Your task to perform on an android device: Open settings on Google Maps Image 0: 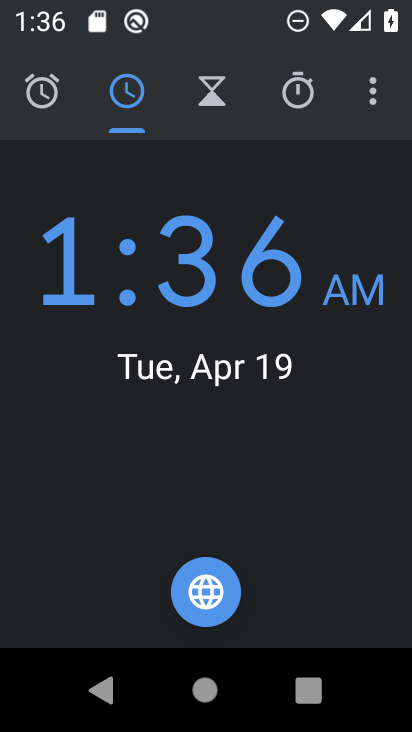
Step 0: press home button
Your task to perform on an android device: Open settings on Google Maps Image 1: 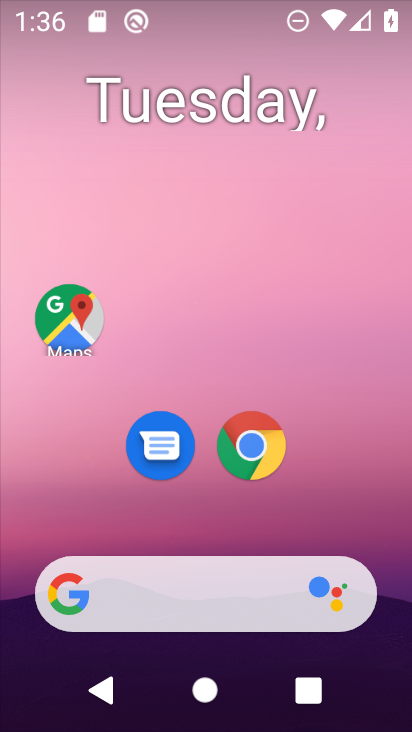
Step 1: click (68, 320)
Your task to perform on an android device: Open settings on Google Maps Image 2: 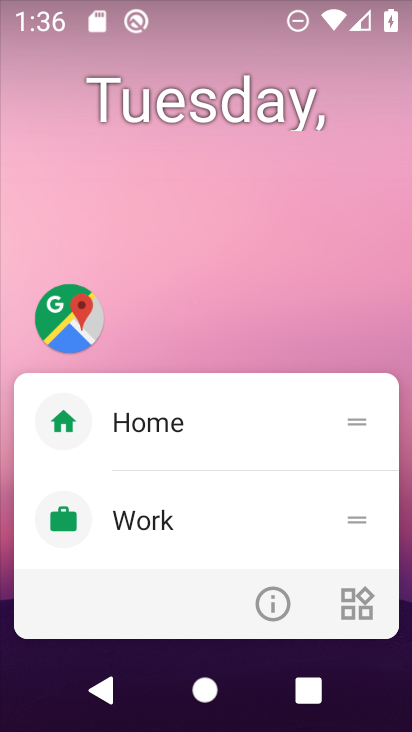
Step 2: click (142, 529)
Your task to perform on an android device: Open settings on Google Maps Image 3: 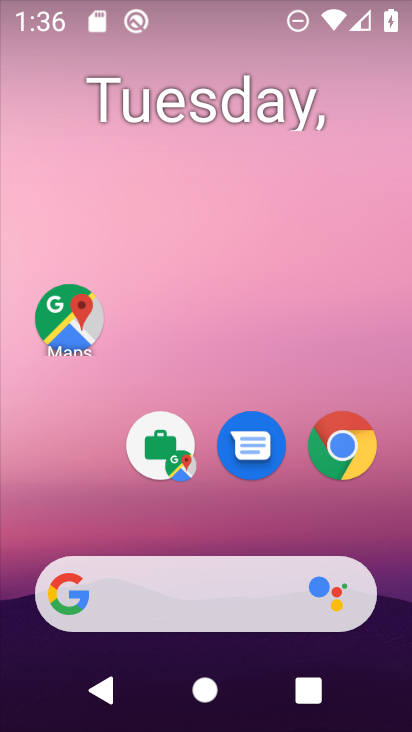
Step 3: click (56, 332)
Your task to perform on an android device: Open settings on Google Maps Image 4: 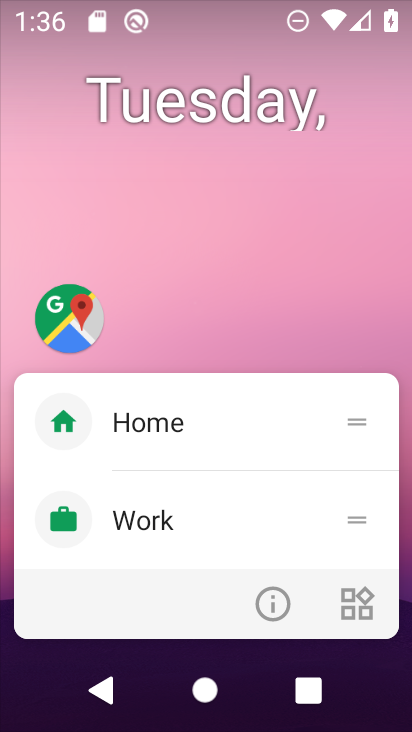
Step 4: click (70, 316)
Your task to perform on an android device: Open settings on Google Maps Image 5: 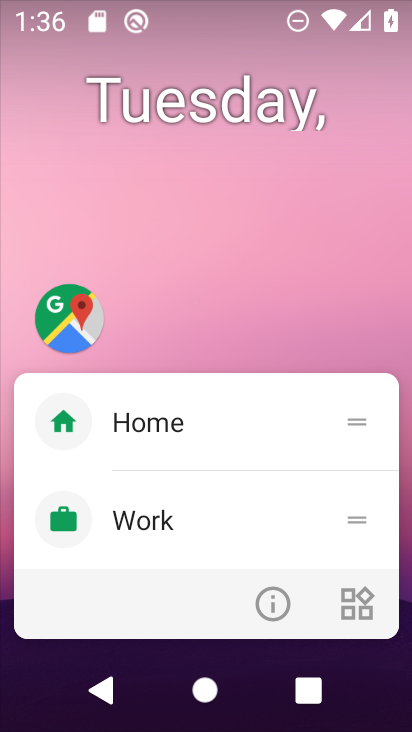
Step 5: click (70, 316)
Your task to perform on an android device: Open settings on Google Maps Image 6: 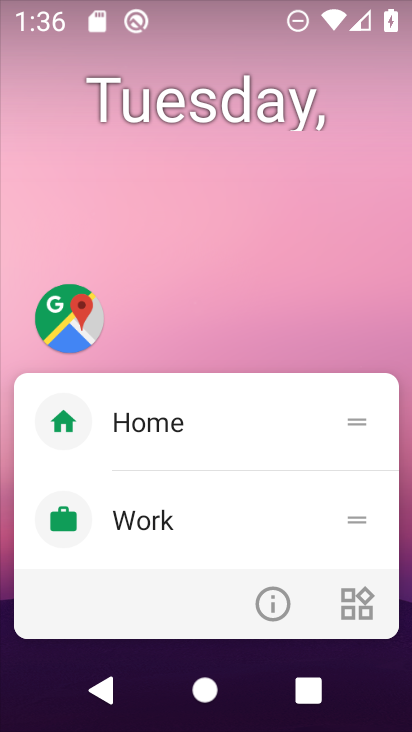
Step 6: click (162, 512)
Your task to perform on an android device: Open settings on Google Maps Image 7: 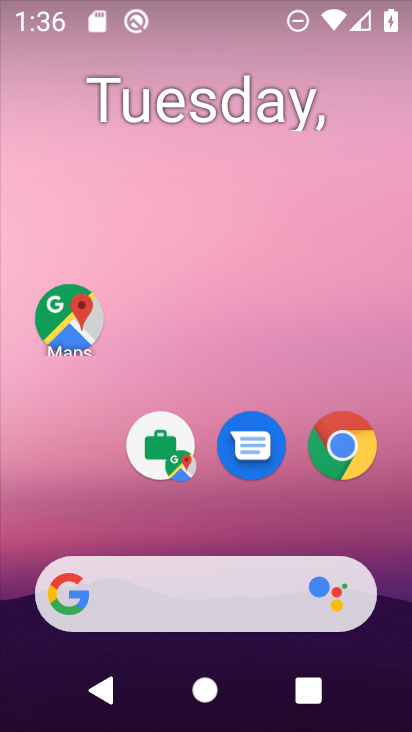
Step 7: click (163, 456)
Your task to perform on an android device: Open settings on Google Maps Image 8: 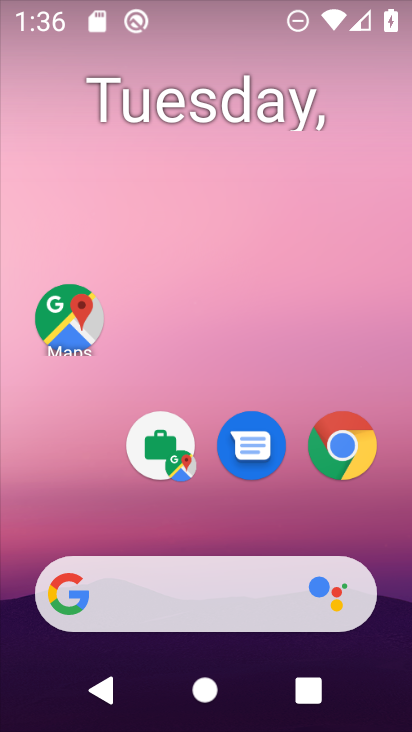
Step 8: click (79, 319)
Your task to perform on an android device: Open settings on Google Maps Image 9: 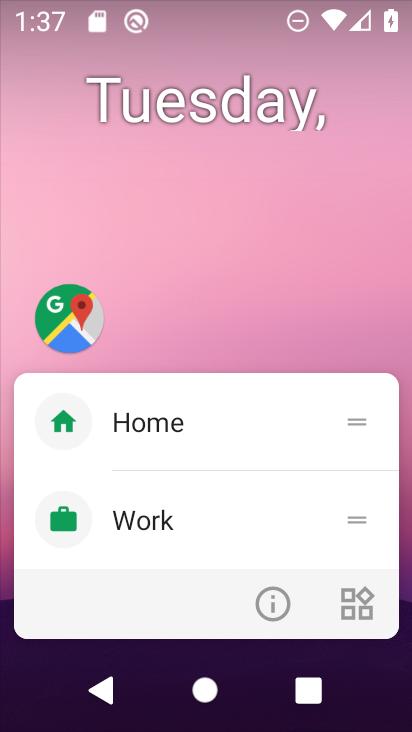
Step 9: click (153, 423)
Your task to perform on an android device: Open settings on Google Maps Image 10: 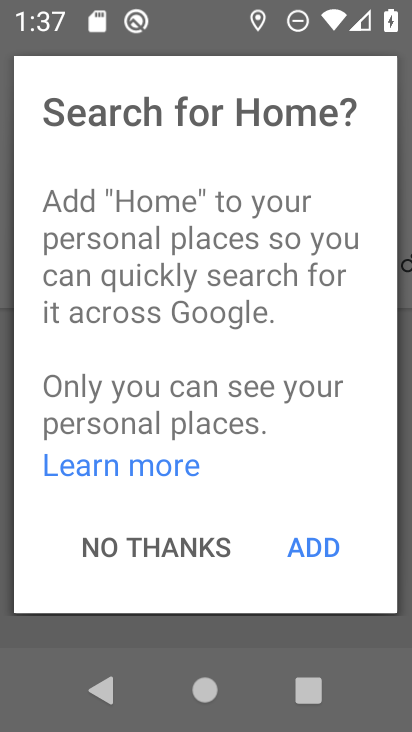
Step 10: click (185, 547)
Your task to perform on an android device: Open settings on Google Maps Image 11: 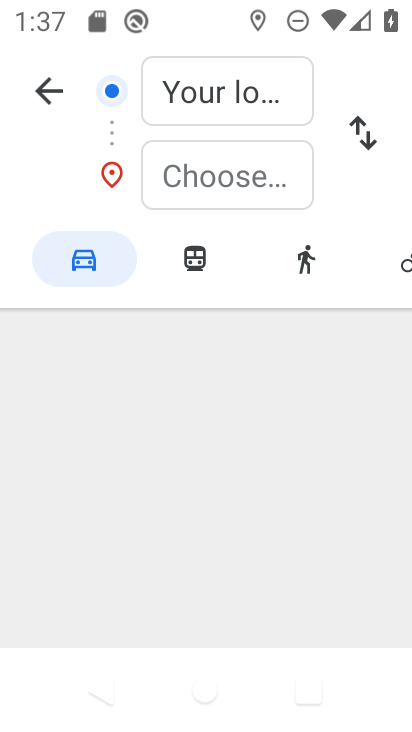
Step 11: click (39, 101)
Your task to perform on an android device: Open settings on Google Maps Image 12: 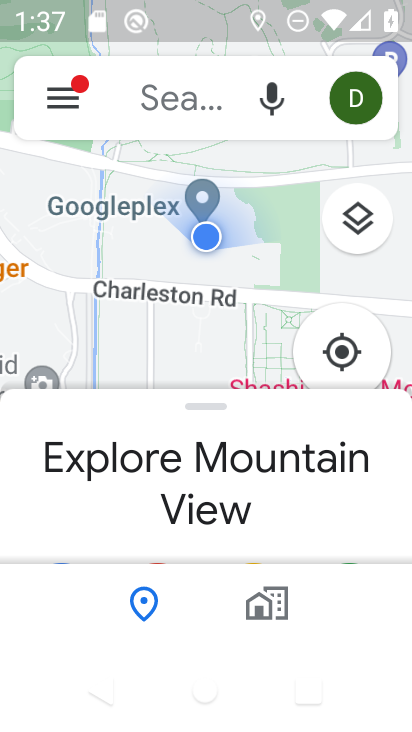
Step 12: click (55, 110)
Your task to perform on an android device: Open settings on Google Maps Image 13: 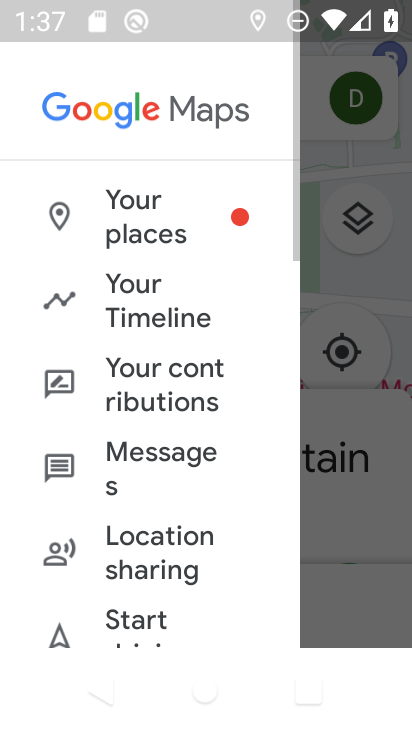
Step 13: drag from (157, 484) to (173, 215)
Your task to perform on an android device: Open settings on Google Maps Image 14: 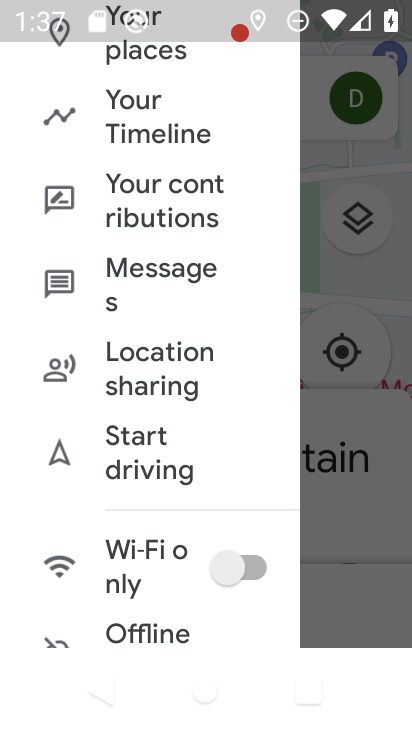
Step 14: drag from (124, 504) to (162, 237)
Your task to perform on an android device: Open settings on Google Maps Image 15: 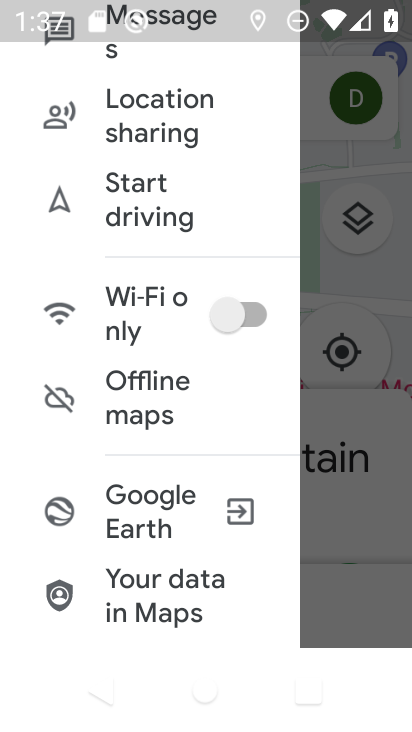
Step 15: drag from (117, 547) to (169, 281)
Your task to perform on an android device: Open settings on Google Maps Image 16: 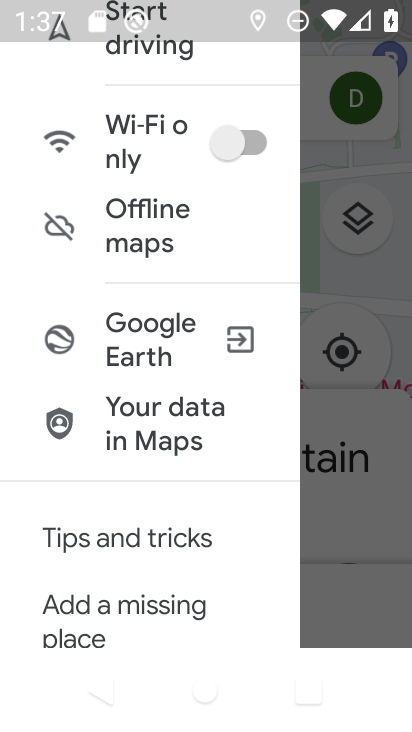
Step 16: drag from (129, 396) to (165, 218)
Your task to perform on an android device: Open settings on Google Maps Image 17: 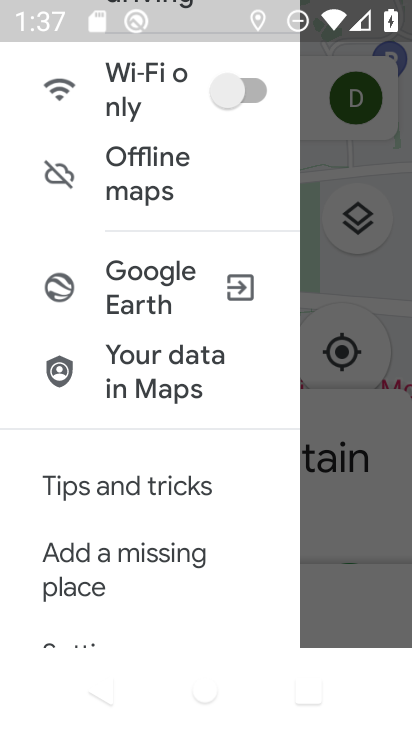
Step 17: drag from (134, 471) to (158, 235)
Your task to perform on an android device: Open settings on Google Maps Image 18: 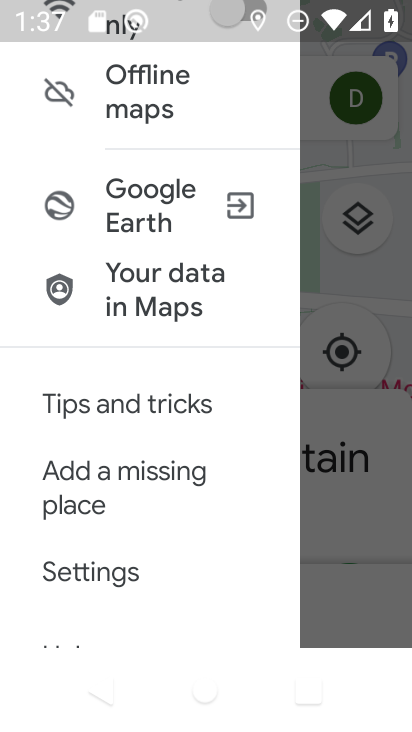
Step 18: click (97, 588)
Your task to perform on an android device: Open settings on Google Maps Image 19: 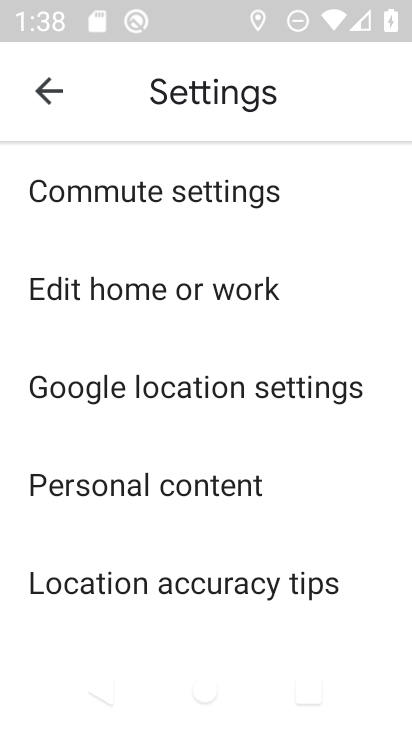
Step 19: task complete